Your task to perform on an android device: turn off translation in the chrome app Image 0: 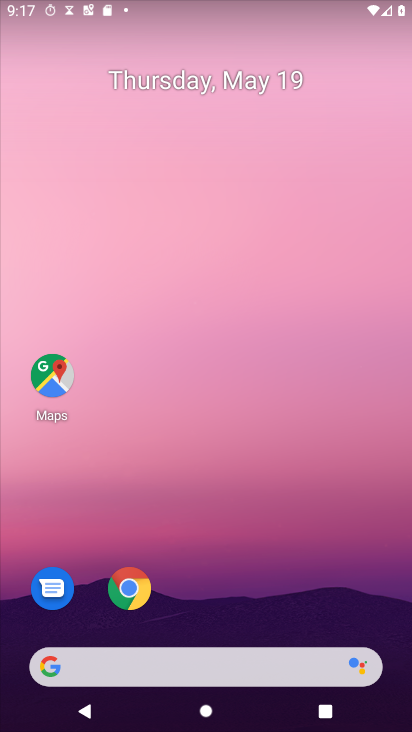
Step 0: press home button
Your task to perform on an android device: turn off translation in the chrome app Image 1: 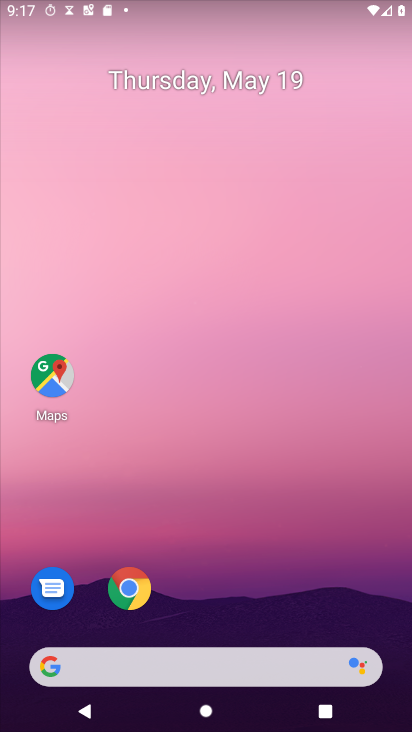
Step 1: click (135, 595)
Your task to perform on an android device: turn off translation in the chrome app Image 2: 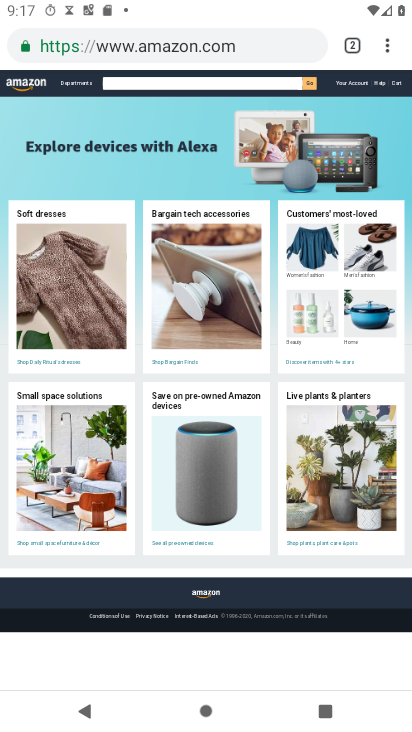
Step 2: drag from (387, 49) to (276, 546)
Your task to perform on an android device: turn off translation in the chrome app Image 3: 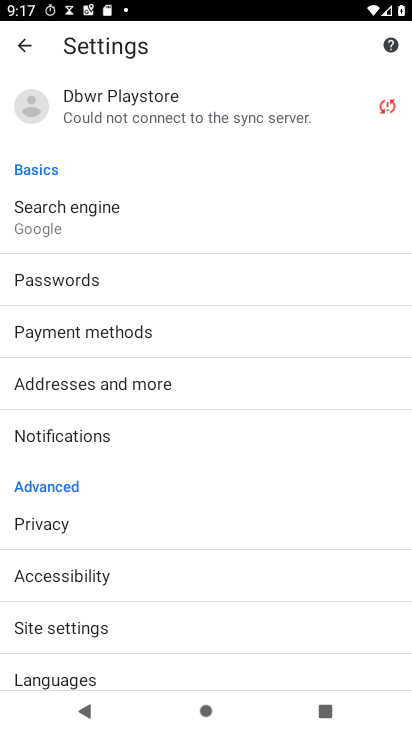
Step 3: click (94, 672)
Your task to perform on an android device: turn off translation in the chrome app Image 4: 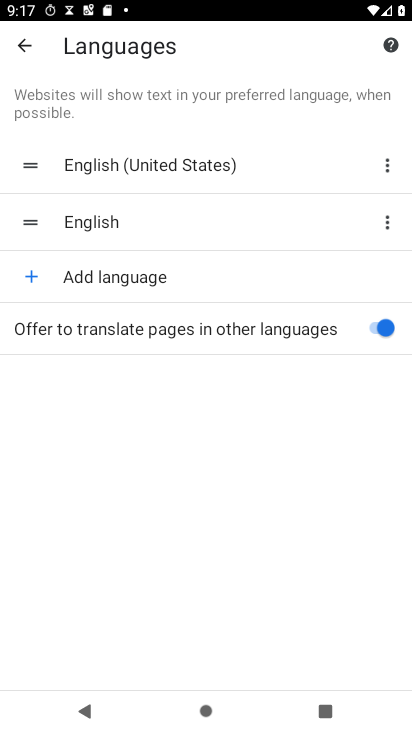
Step 4: click (372, 326)
Your task to perform on an android device: turn off translation in the chrome app Image 5: 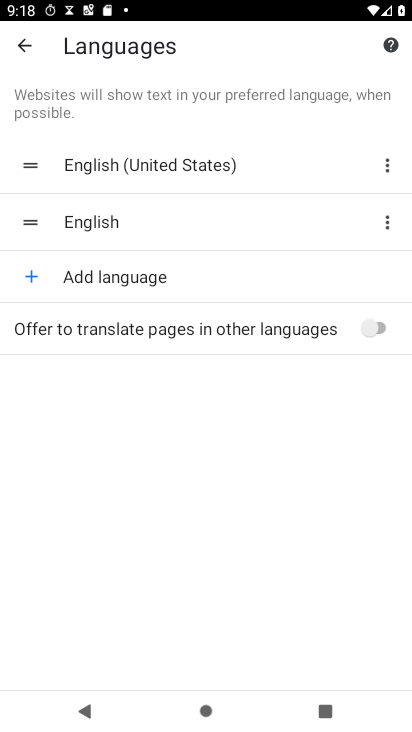
Step 5: task complete